Your task to perform on an android device: Open Wikipedia Image 0: 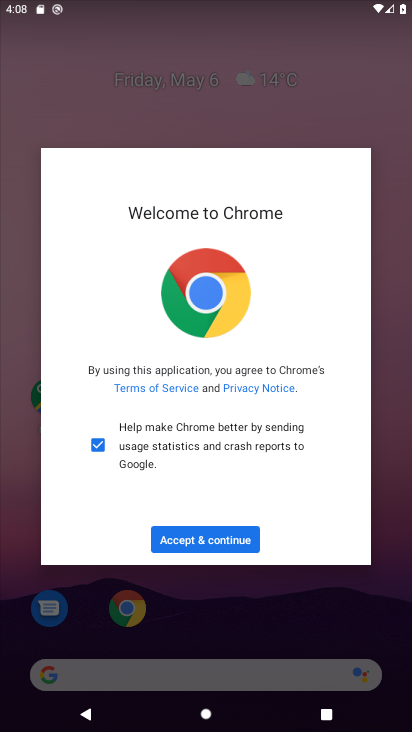
Step 0: click (234, 543)
Your task to perform on an android device: Open Wikipedia Image 1: 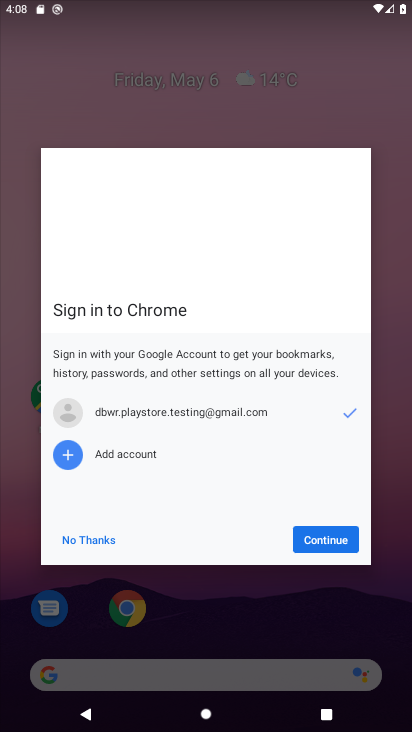
Step 1: click (315, 540)
Your task to perform on an android device: Open Wikipedia Image 2: 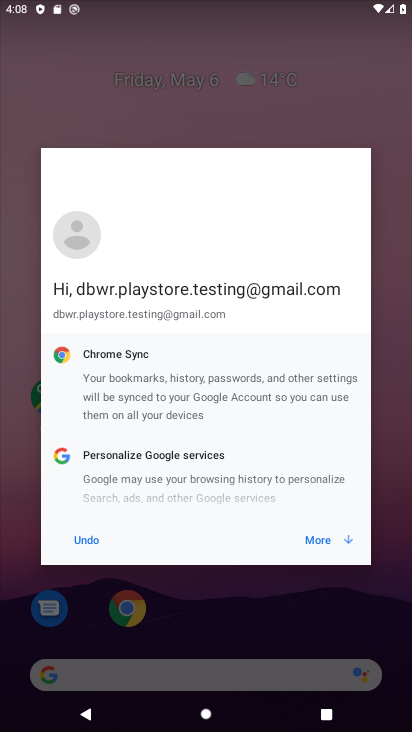
Step 2: click (317, 545)
Your task to perform on an android device: Open Wikipedia Image 3: 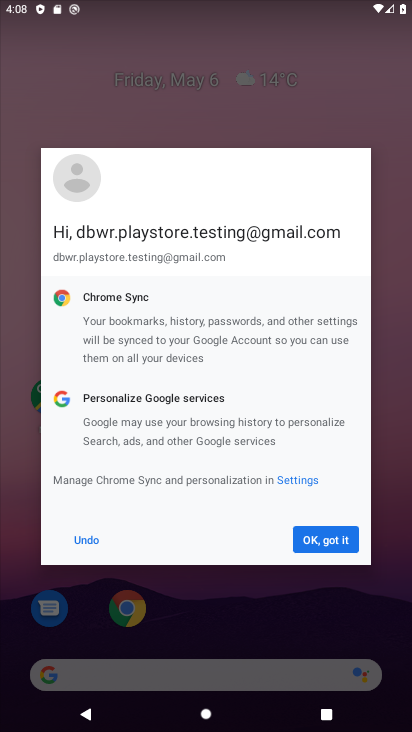
Step 3: click (317, 545)
Your task to perform on an android device: Open Wikipedia Image 4: 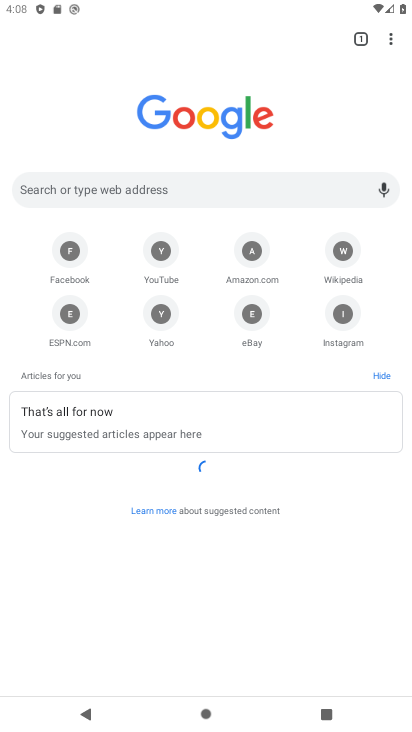
Step 4: click (343, 260)
Your task to perform on an android device: Open Wikipedia Image 5: 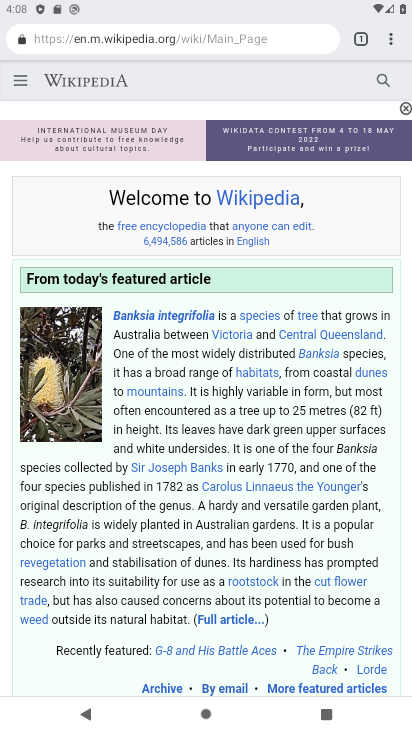
Step 5: task complete